Your task to perform on an android device: change the clock display to show seconds Image 0: 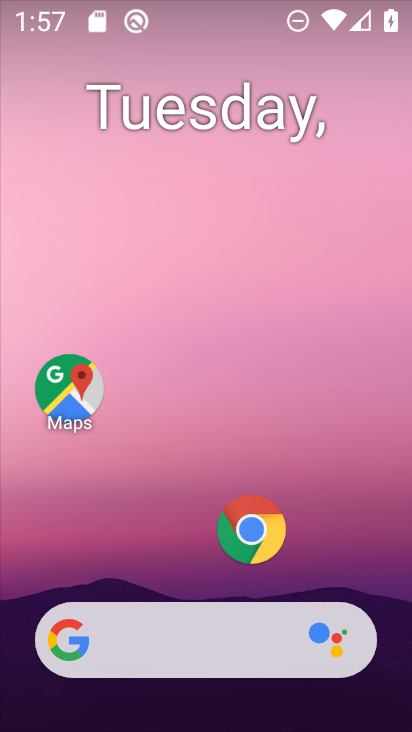
Step 0: drag from (334, 665) to (351, 61)
Your task to perform on an android device: change the clock display to show seconds Image 1: 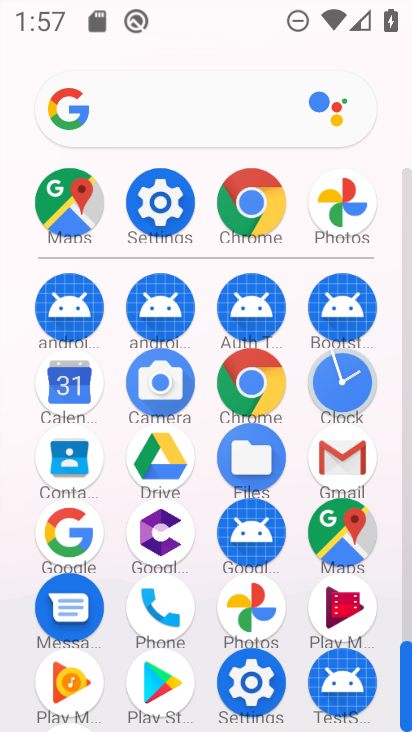
Step 1: click (332, 384)
Your task to perform on an android device: change the clock display to show seconds Image 2: 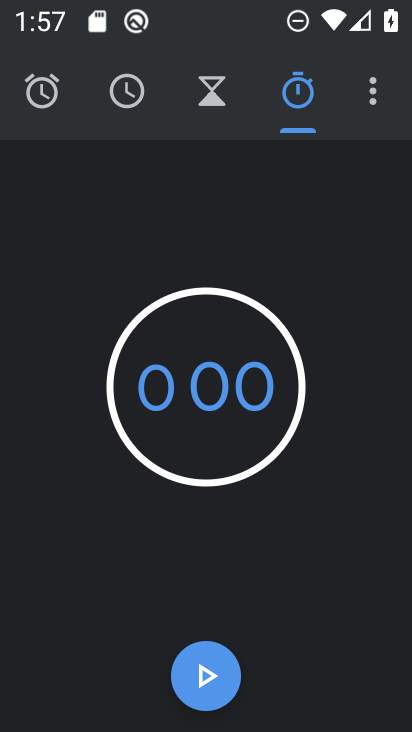
Step 2: click (374, 96)
Your task to perform on an android device: change the clock display to show seconds Image 3: 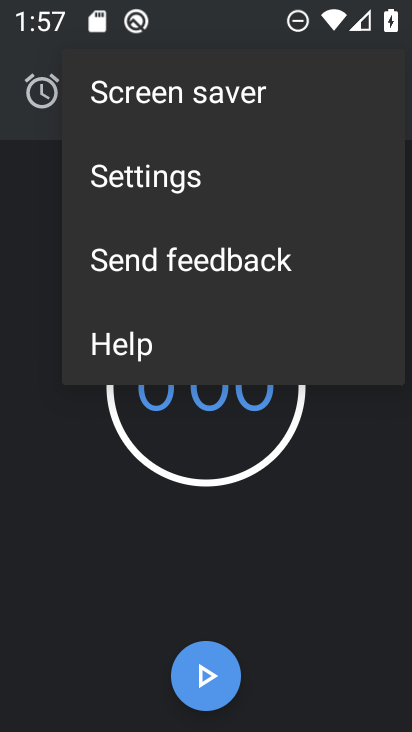
Step 3: click (189, 173)
Your task to perform on an android device: change the clock display to show seconds Image 4: 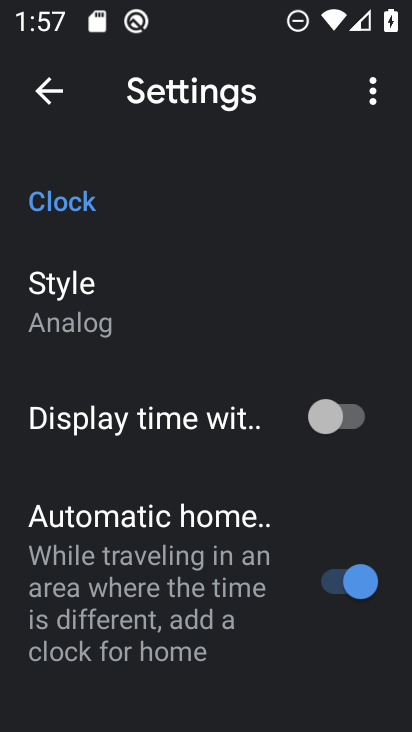
Step 4: click (343, 414)
Your task to perform on an android device: change the clock display to show seconds Image 5: 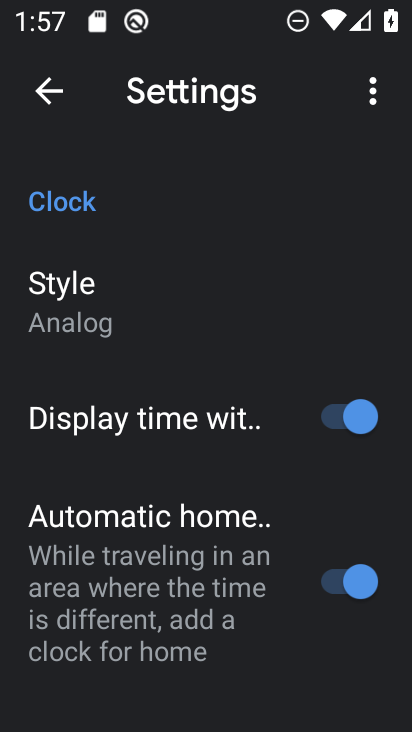
Step 5: task complete